Your task to perform on an android device: install app "Roku - Official Remote Control" Image 0: 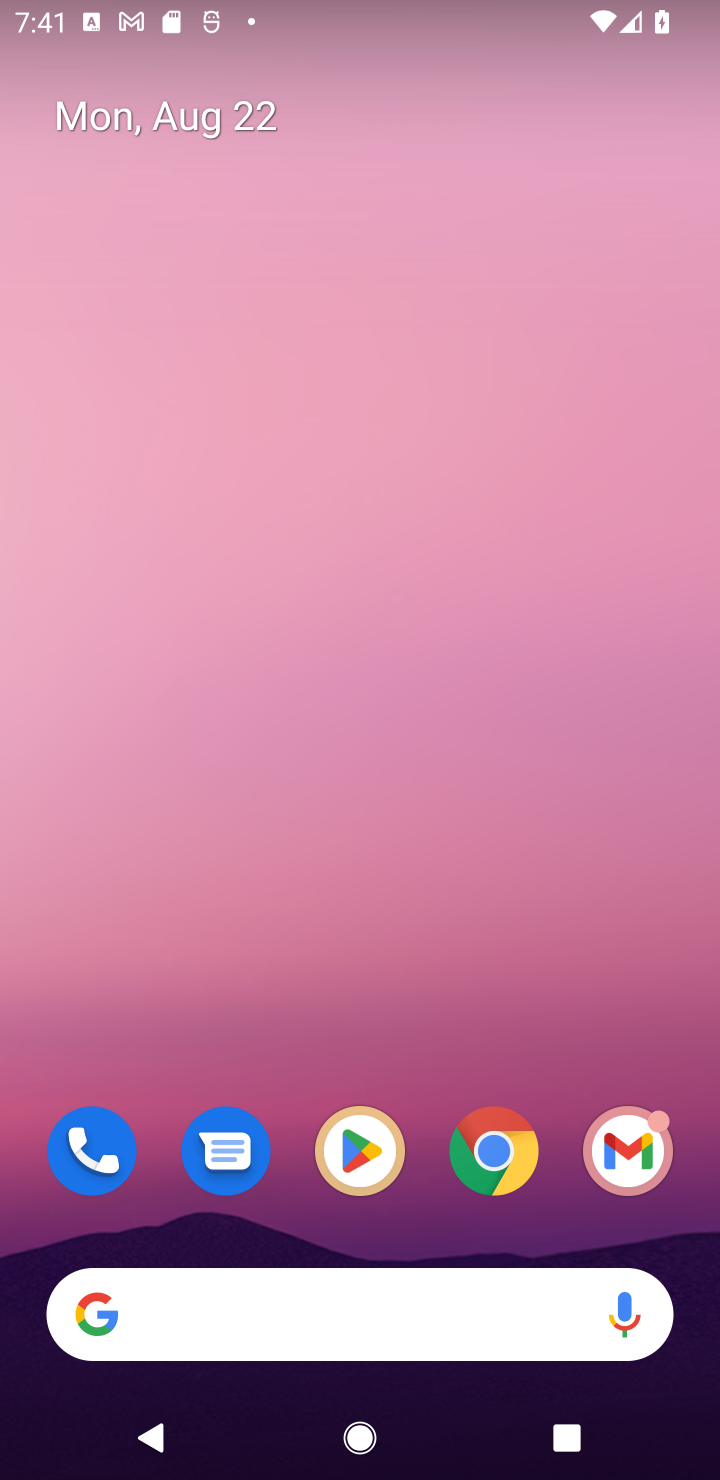
Step 0: press home button
Your task to perform on an android device: install app "Roku - Official Remote Control" Image 1: 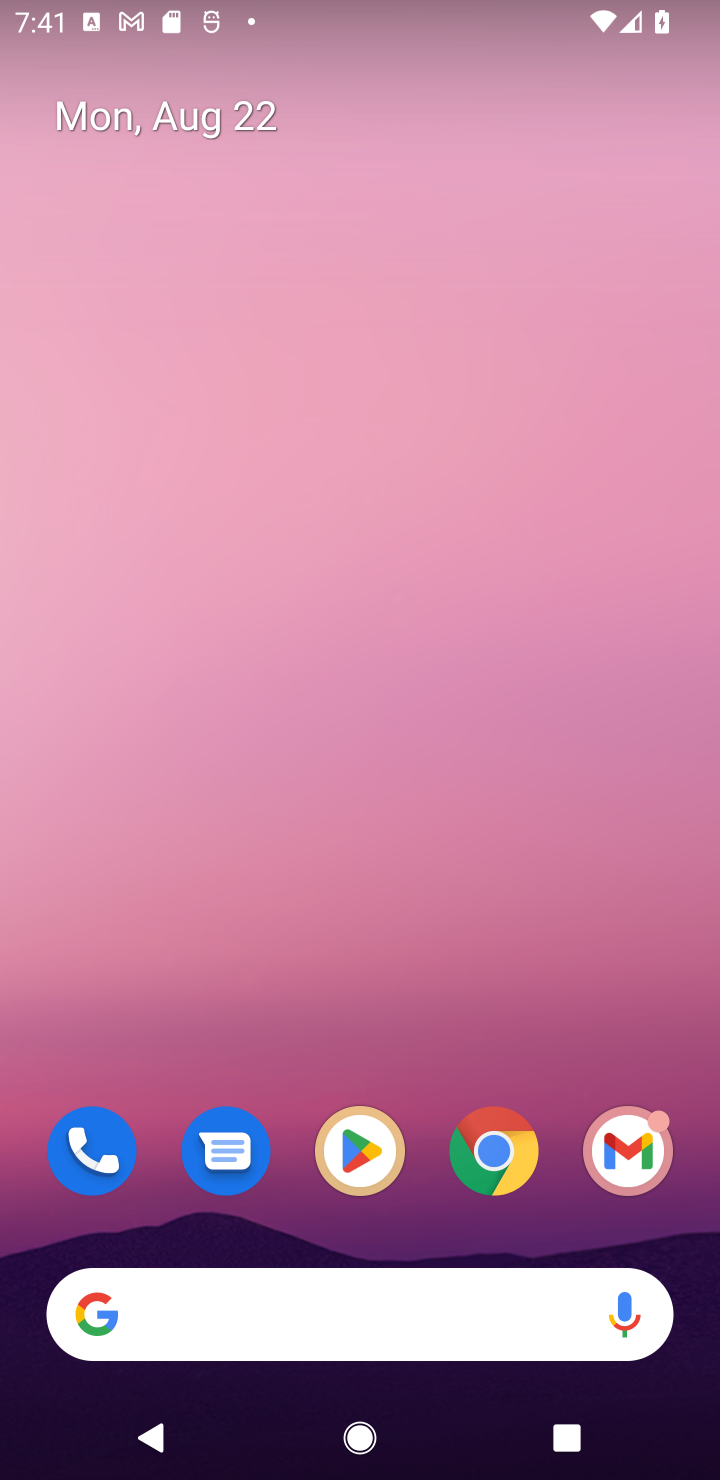
Step 1: click (353, 1140)
Your task to perform on an android device: install app "Roku - Official Remote Control" Image 2: 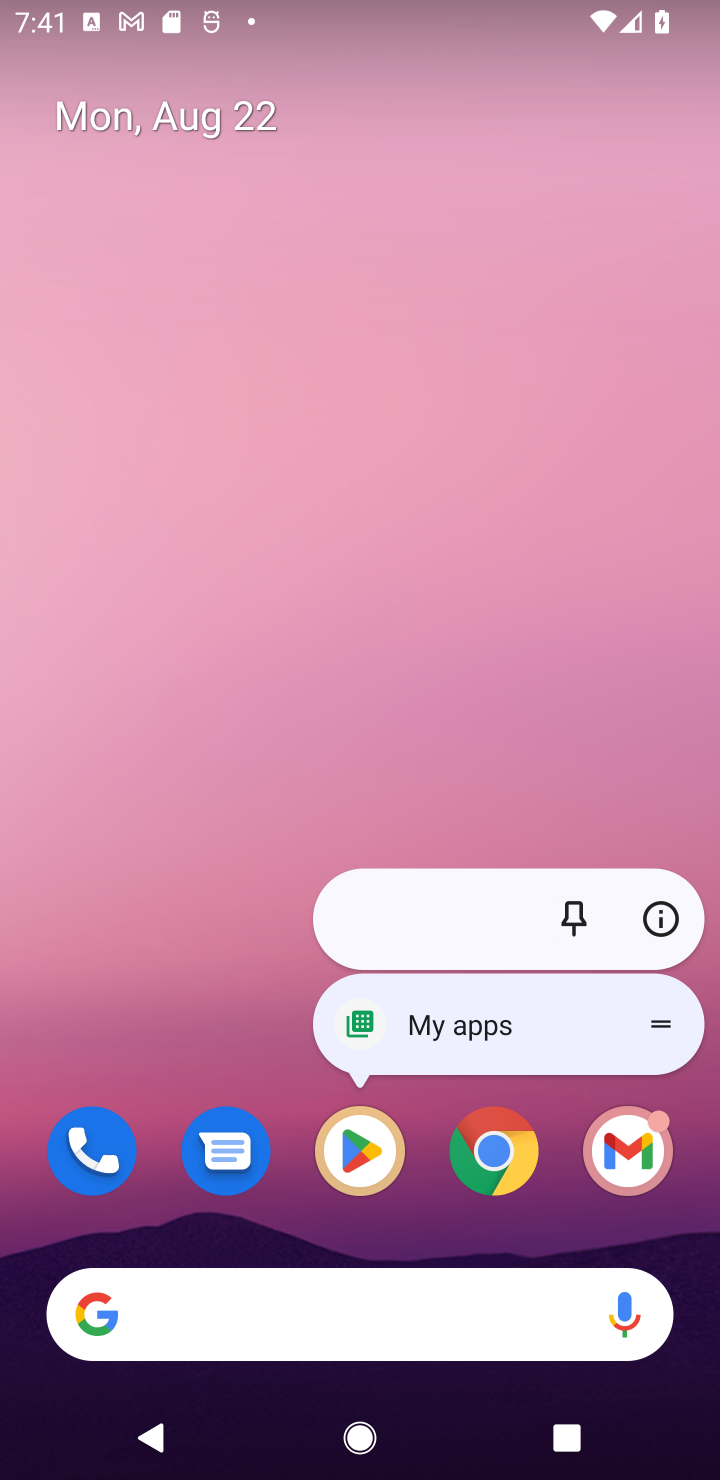
Step 2: click (353, 1140)
Your task to perform on an android device: install app "Roku - Official Remote Control" Image 3: 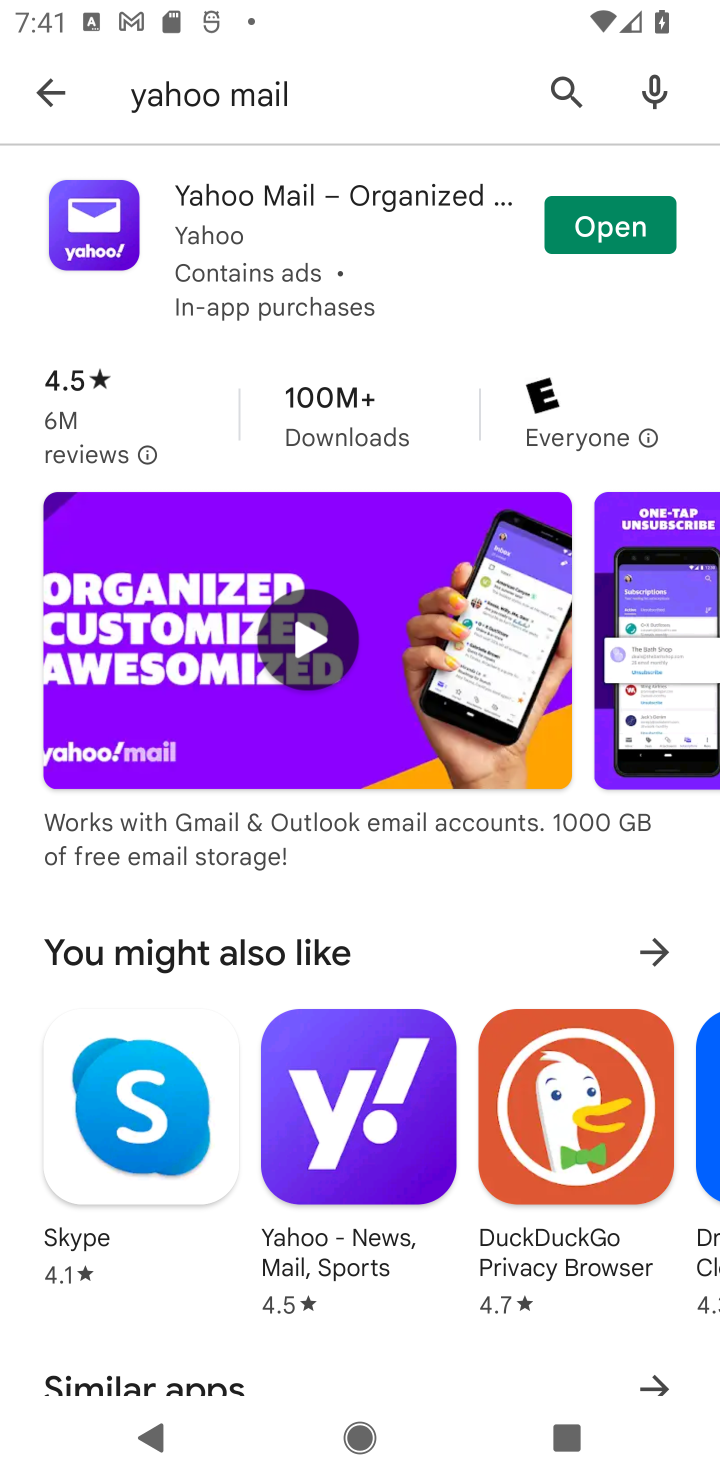
Step 3: click (547, 87)
Your task to perform on an android device: install app "Roku - Official Remote Control" Image 4: 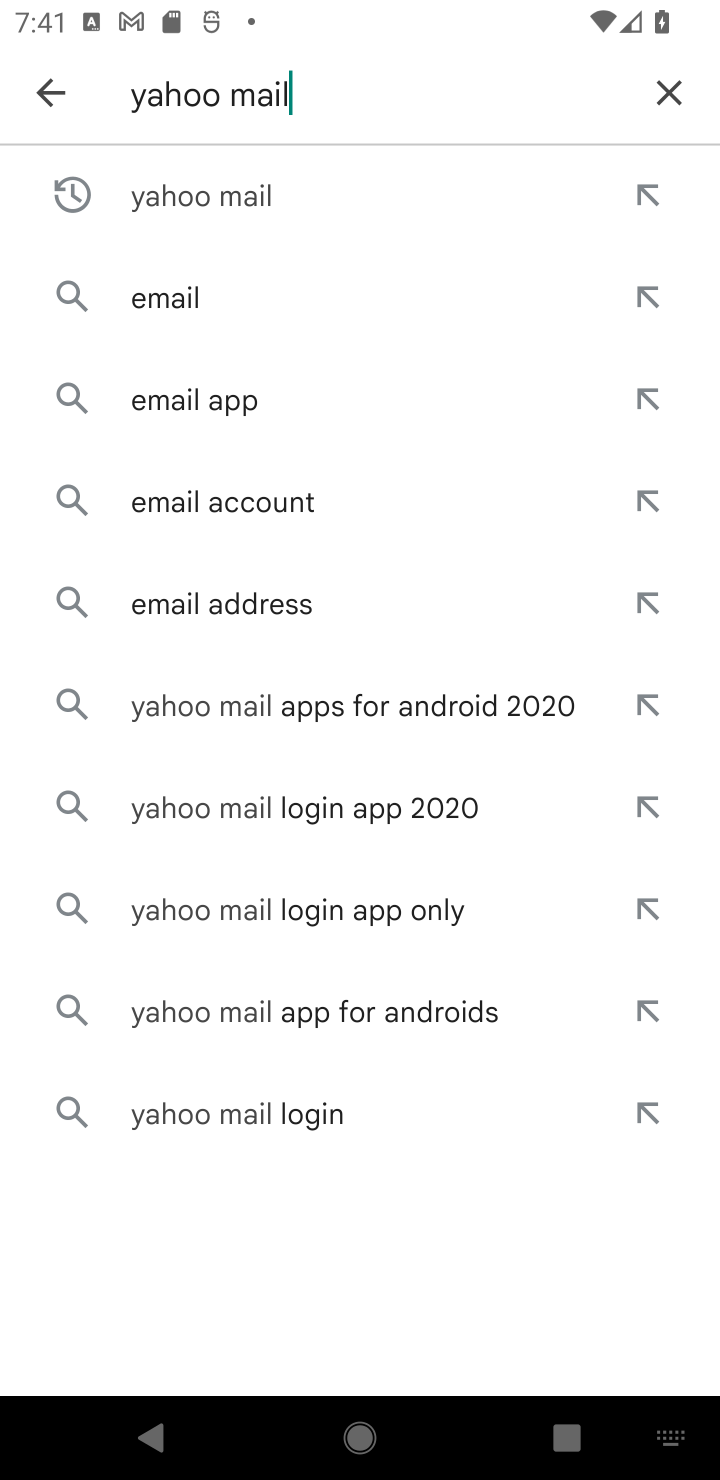
Step 4: click (654, 76)
Your task to perform on an android device: install app "Roku - Official Remote Control" Image 5: 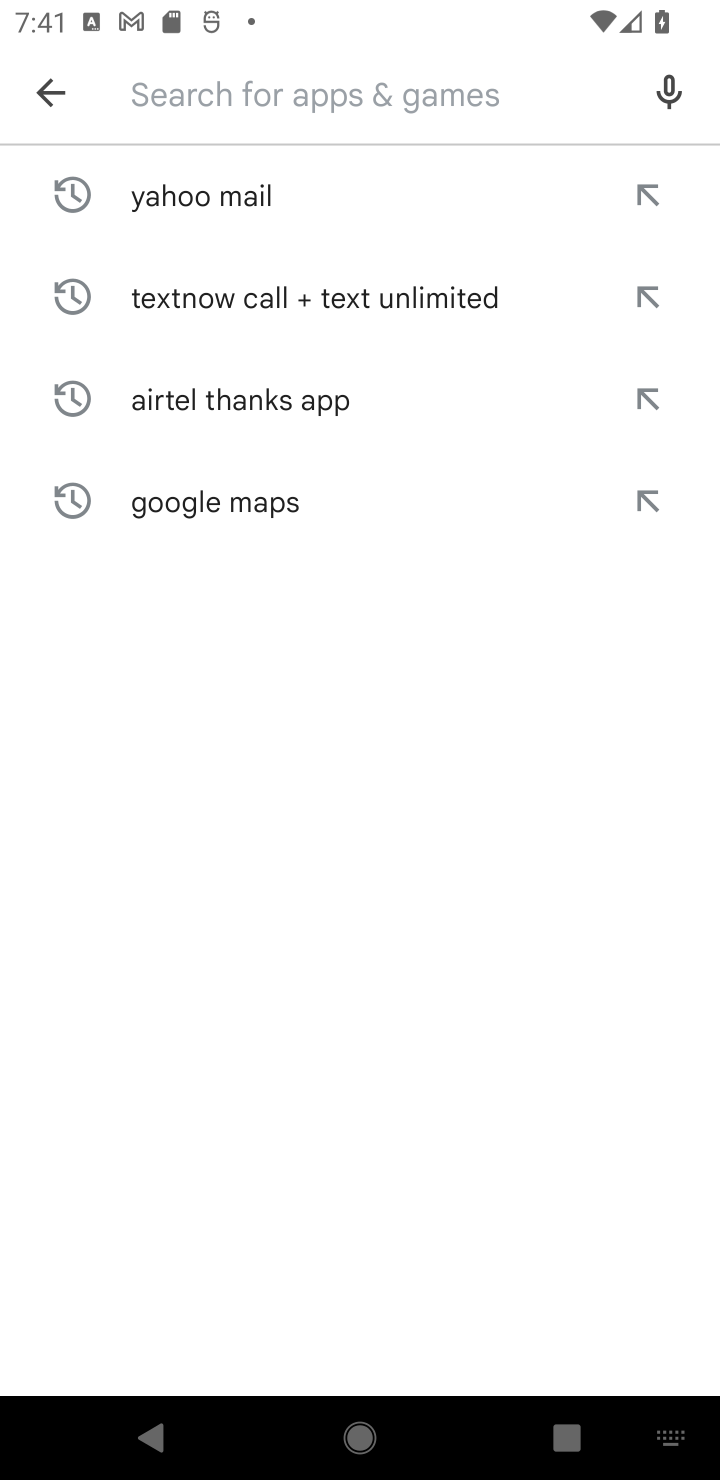
Step 5: type "Roku - Official Remote Control"
Your task to perform on an android device: install app "Roku - Official Remote Control" Image 6: 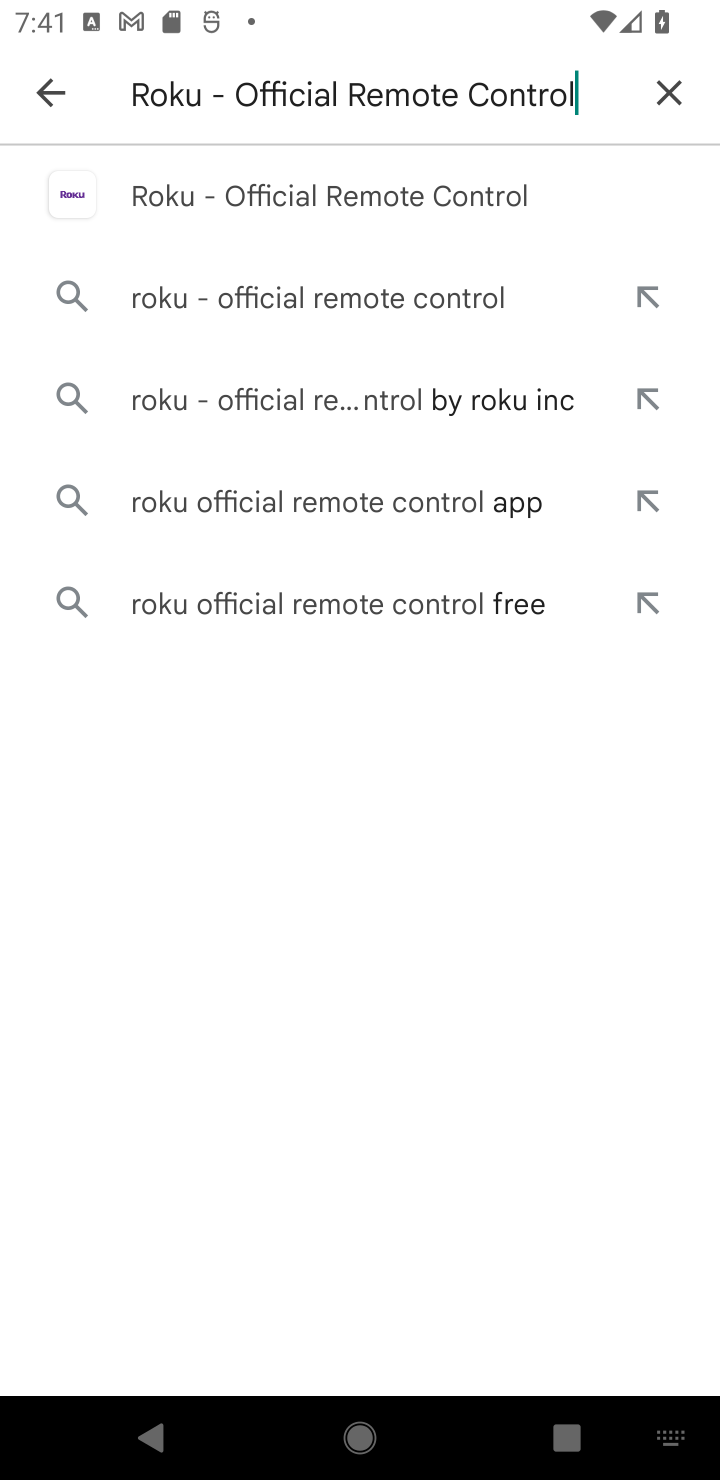
Step 6: click (352, 205)
Your task to perform on an android device: install app "Roku - Official Remote Control" Image 7: 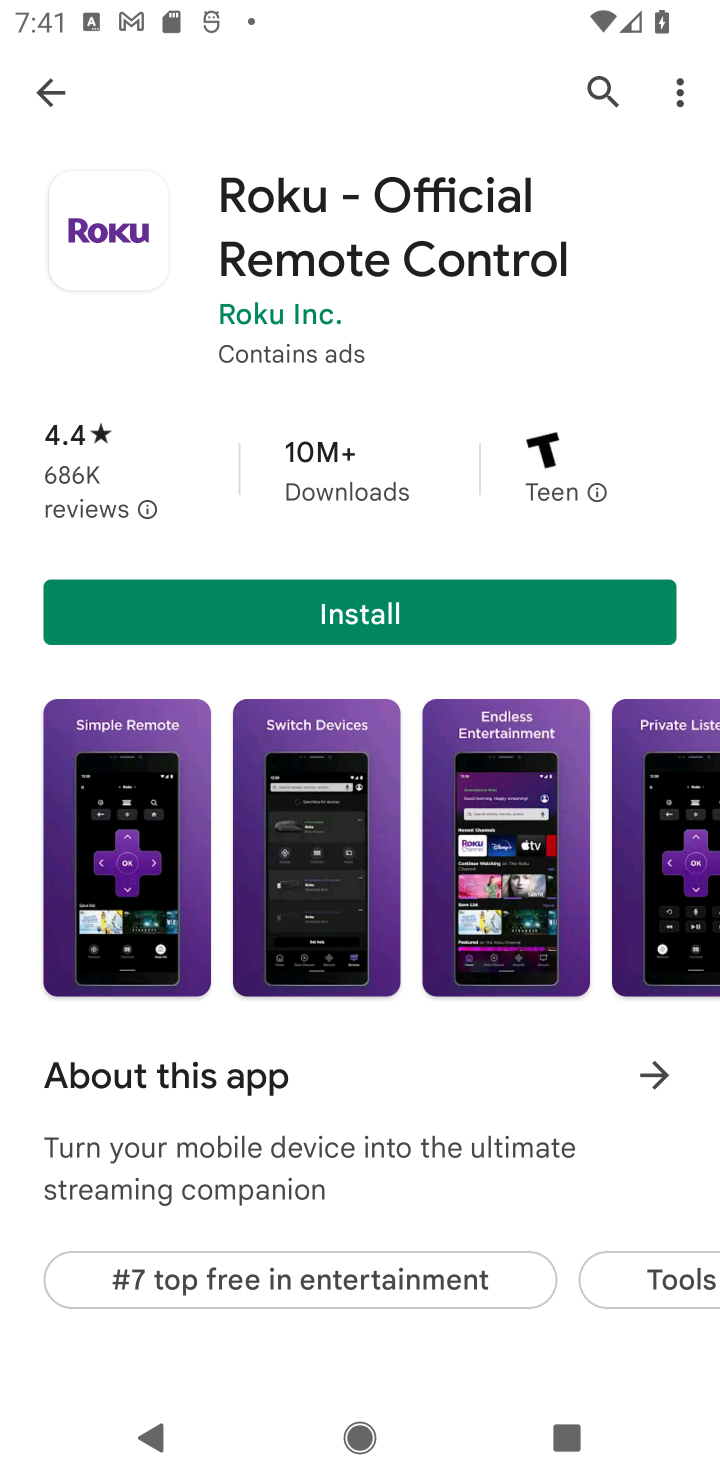
Step 7: click (389, 627)
Your task to perform on an android device: install app "Roku - Official Remote Control" Image 8: 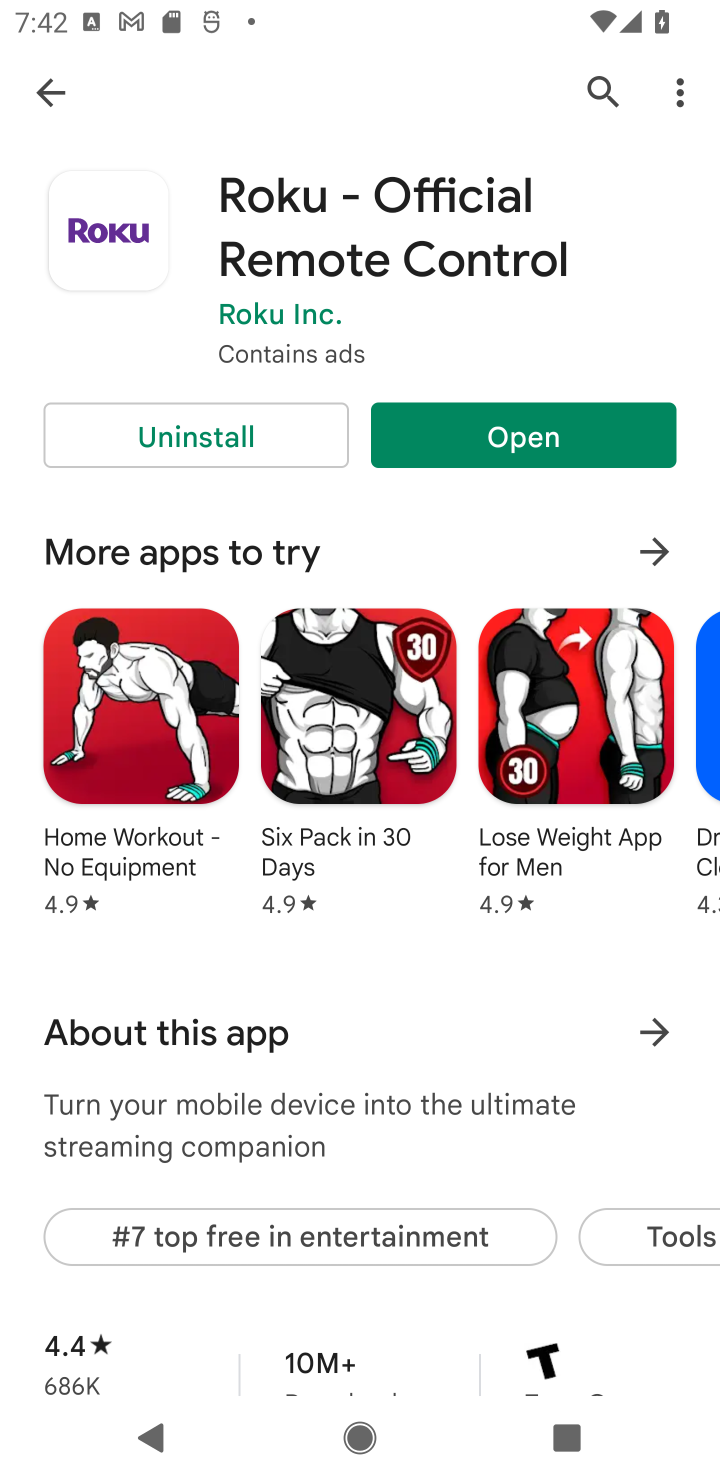
Step 8: task complete